Your task to perform on an android device: Search for hotels in Tokyo Image 0: 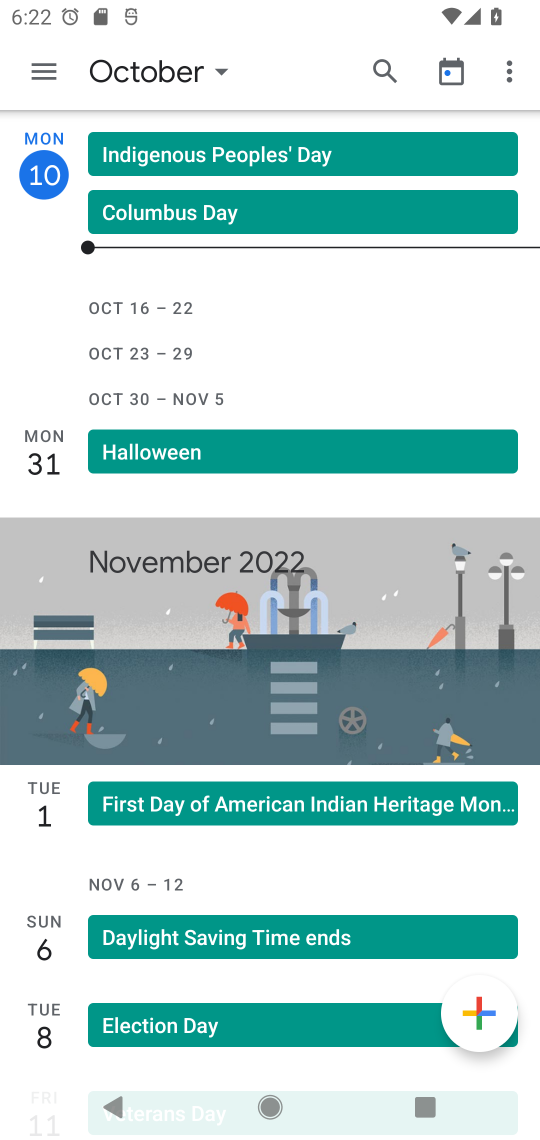
Step 0: press home button
Your task to perform on an android device: Search for hotels in Tokyo Image 1: 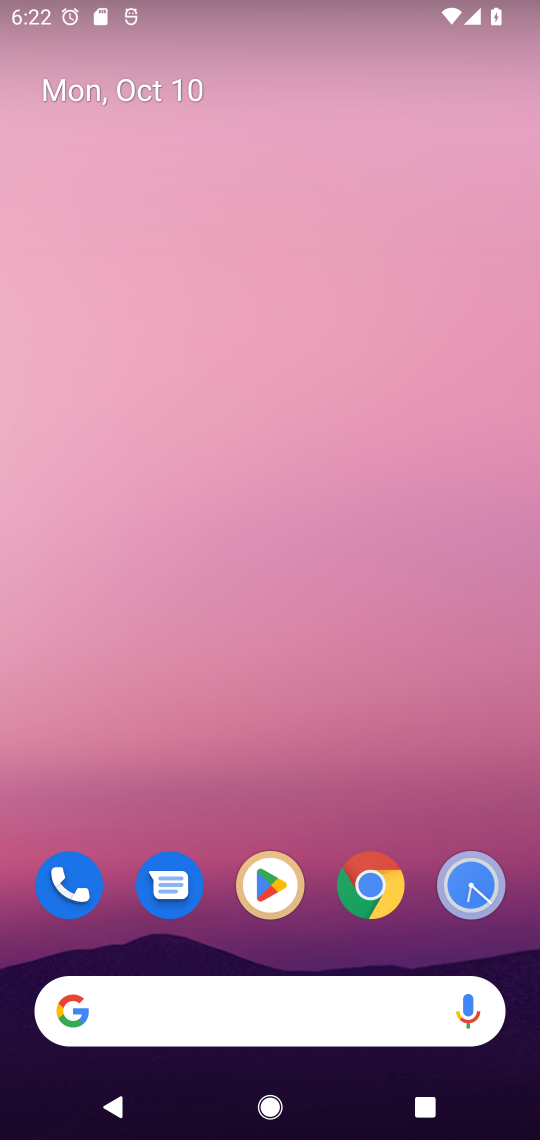
Step 1: click (376, 890)
Your task to perform on an android device: Search for hotels in Tokyo Image 2: 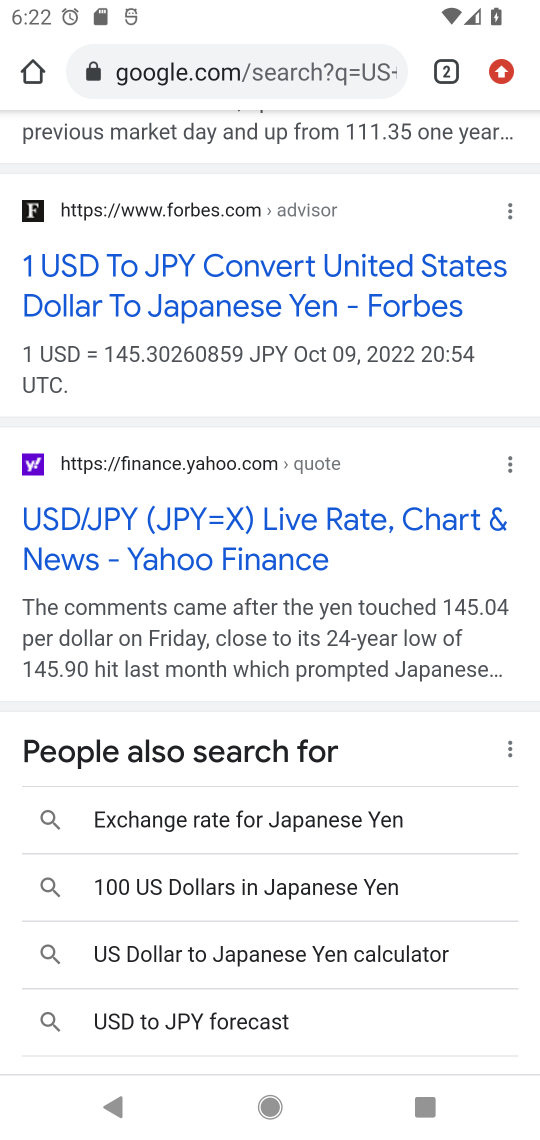
Step 2: click (262, 85)
Your task to perform on an android device: Search for hotels in Tokyo Image 3: 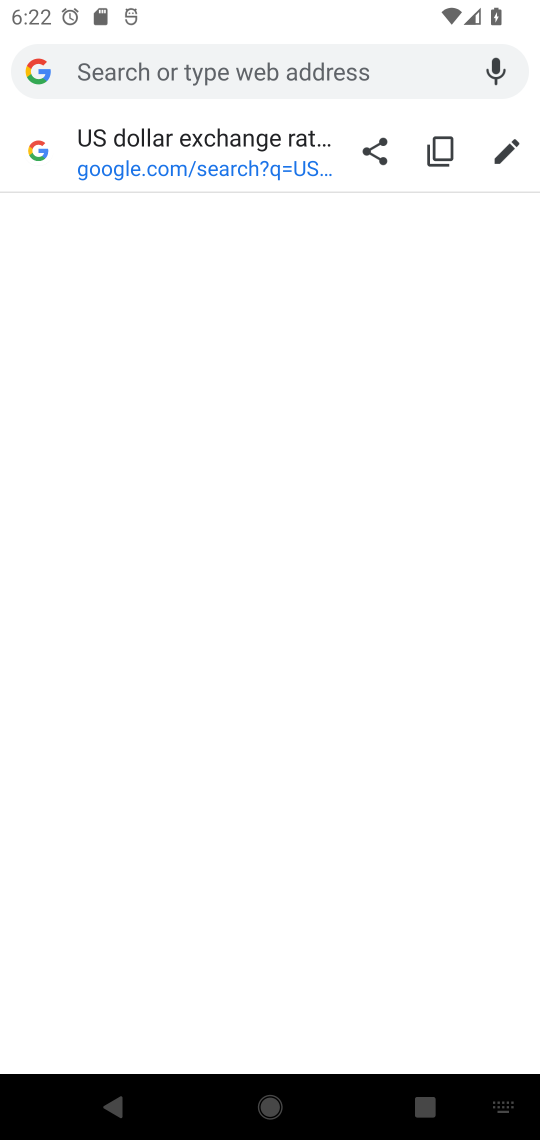
Step 3: type "hotels in Tokyo"
Your task to perform on an android device: Search for hotels in Tokyo Image 4: 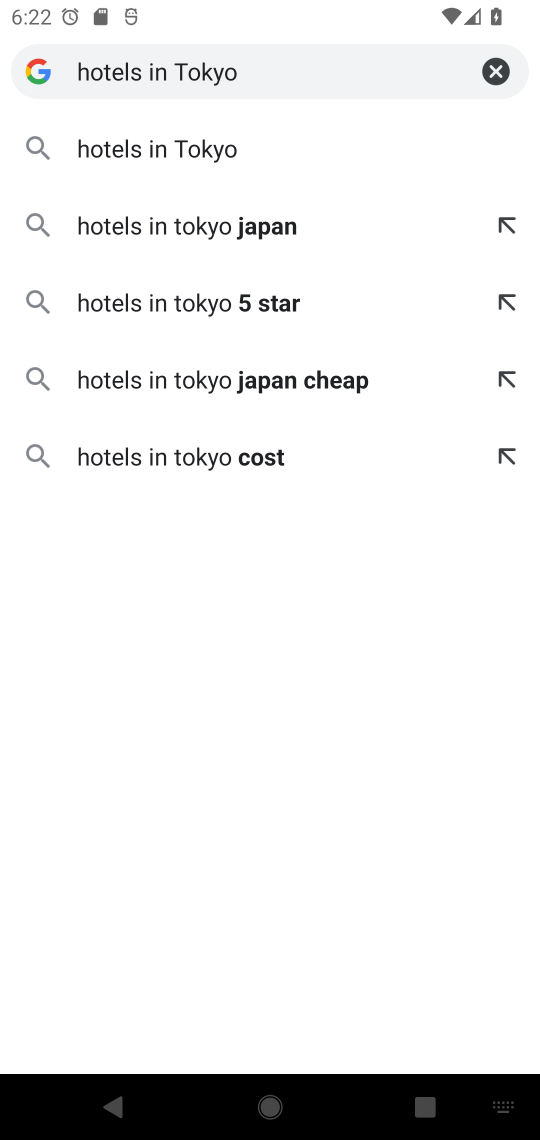
Step 4: click (147, 143)
Your task to perform on an android device: Search for hotels in Tokyo Image 5: 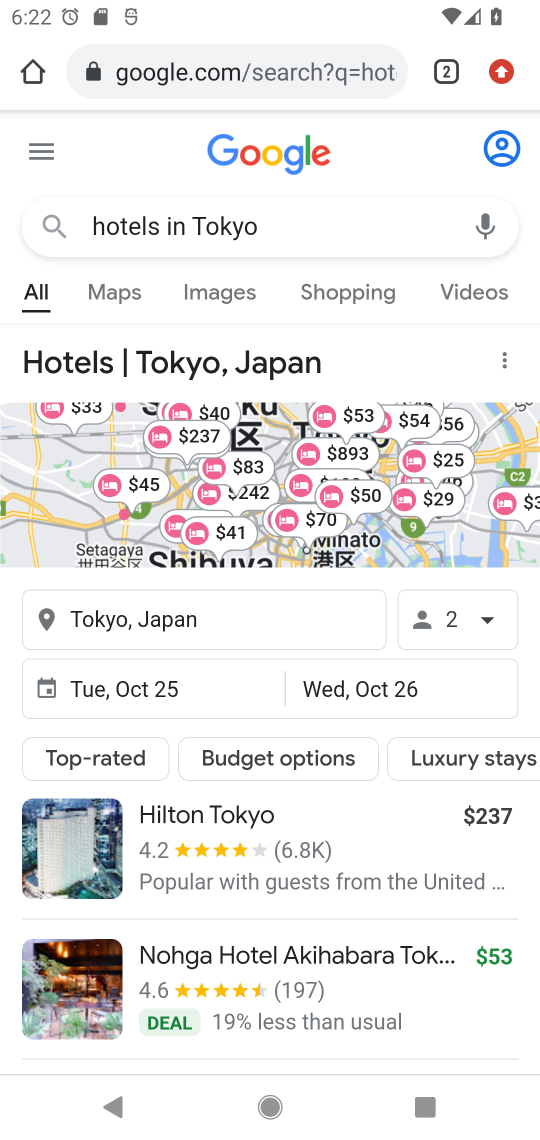
Step 5: click (286, 433)
Your task to perform on an android device: Search for hotels in Tokyo Image 6: 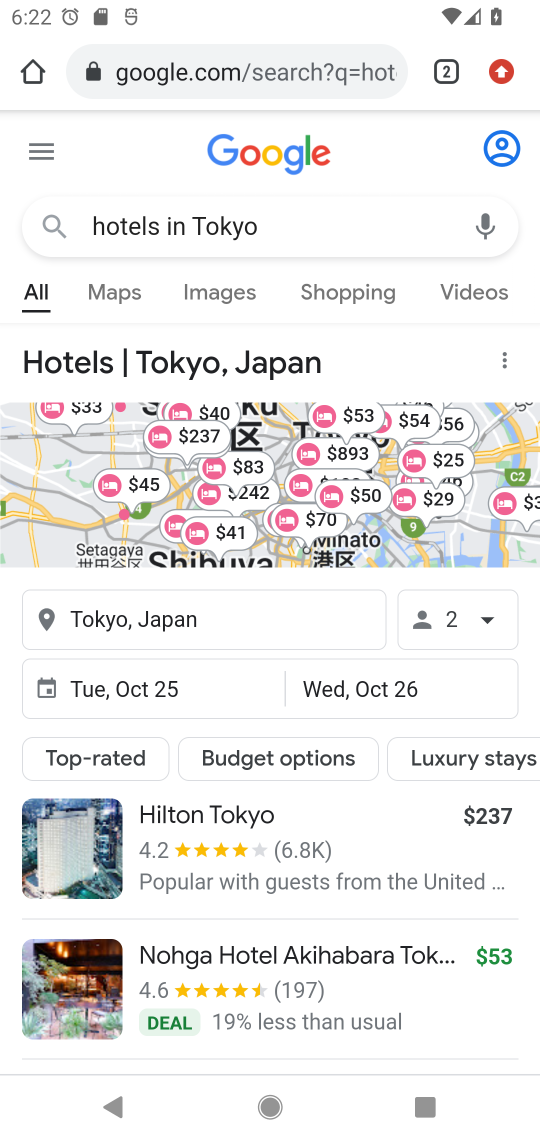
Step 6: drag from (351, 921) to (266, 469)
Your task to perform on an android device: Search for hotels in Tokyo Image 7: 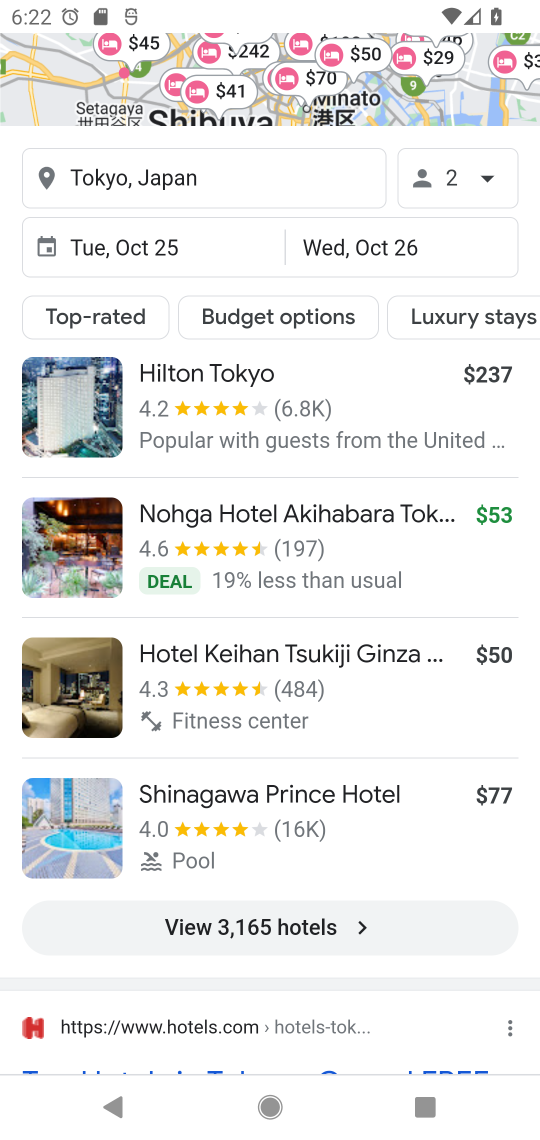
Step 7: click (258, 928)
Your task to perform on an android device: Search for hotels in Tokyo Image 8: 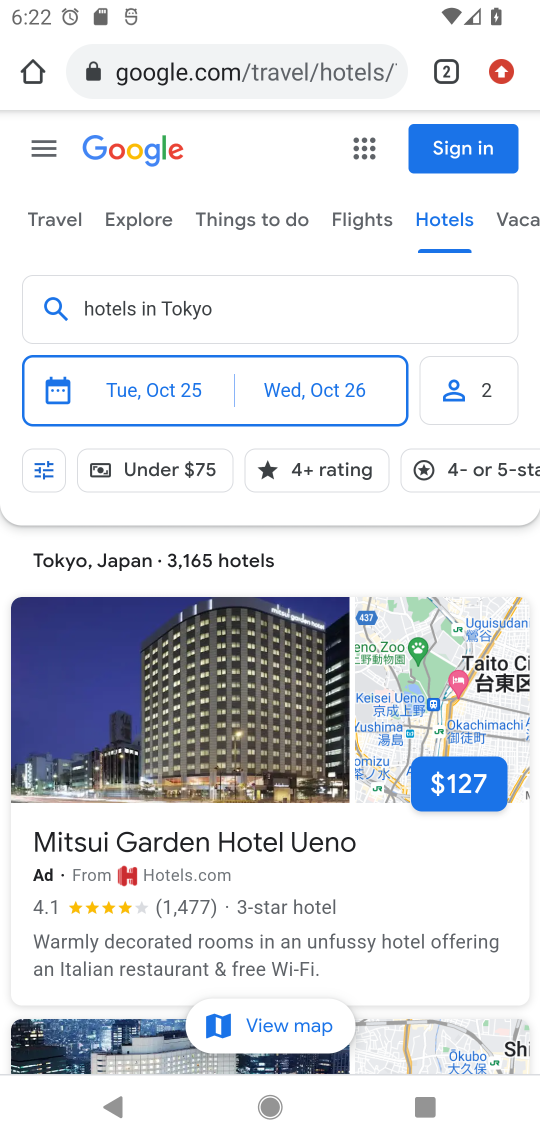
Step 8: task complete